Your task to perform on an android device: Show me recent news Image 0: 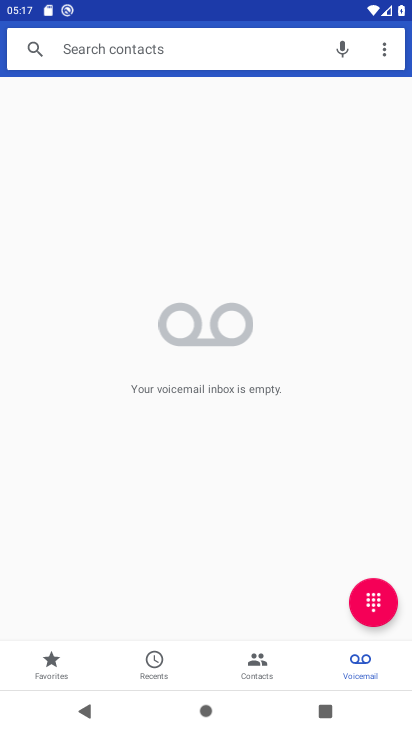
Step 0: press home button
Your task to perform on an android device: Show me recent news Image 1: 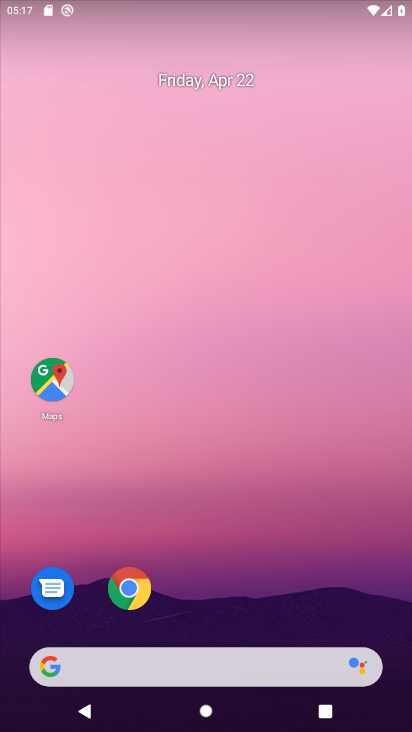
Step 1: click (109, 665)
Your task to perform on an android device: Show me recent news Image 2: 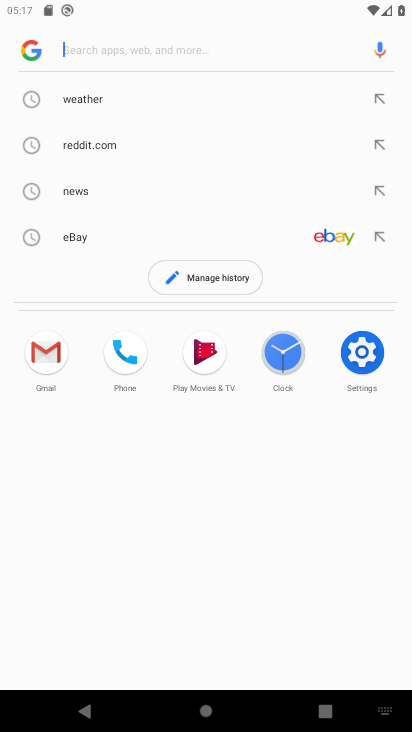
Step 2: click (88, 186)
Your task to perform on an android device: Show me recent news Image 3: 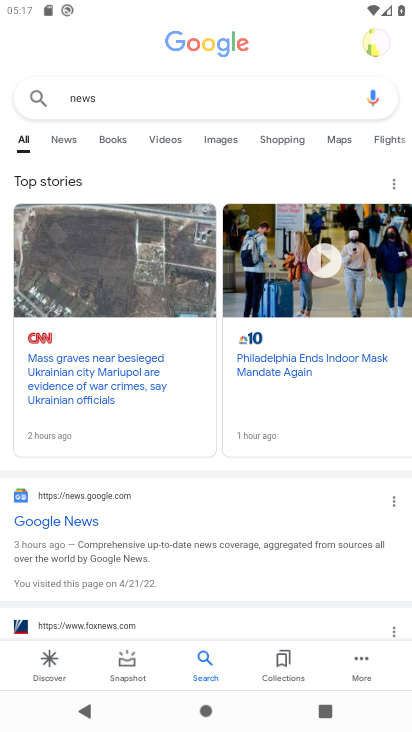
Step 3: click (69, 136)
Your task to perform on an android device: Show me recent news Image 4: 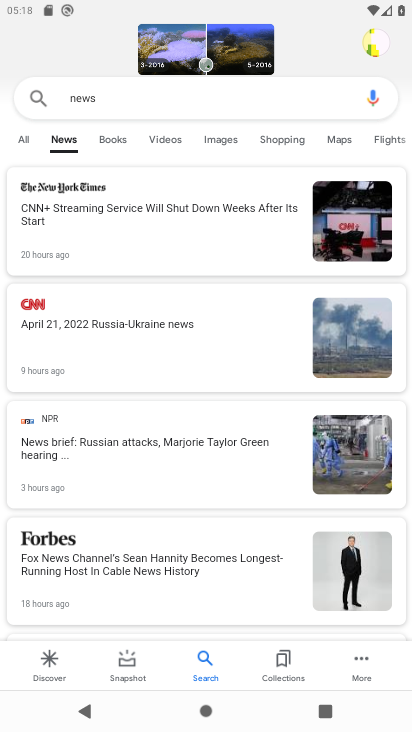
Step 4: task complete